Your task to perform on an android device: Go to Android settings Image 0: 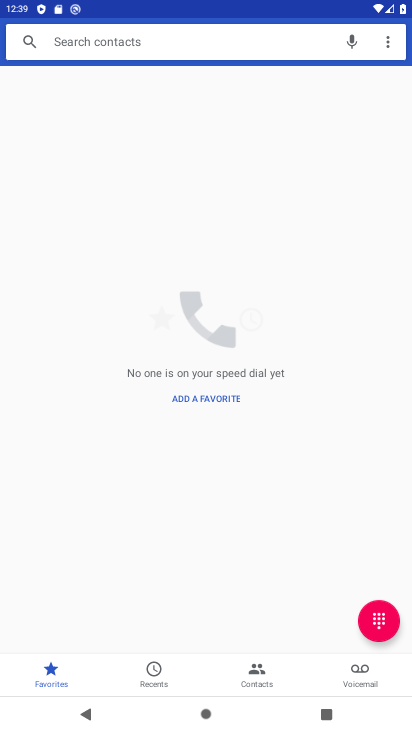
Step 0: press home button
Your task to perform on an android device: Go to Android settings Image 1: 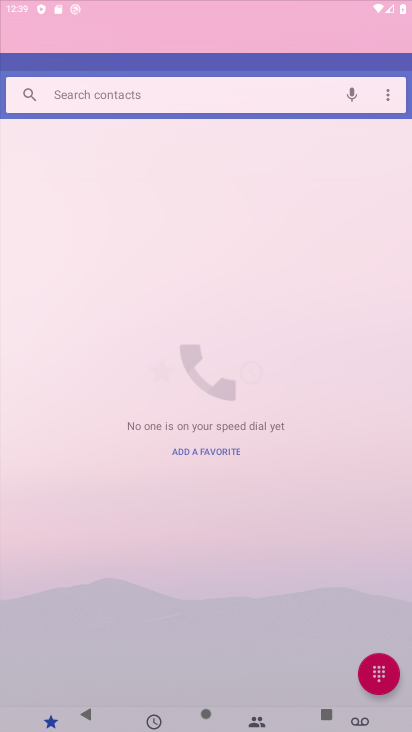
Step 1: press home button
Your task to perform on an android device: Go to Android settings Image 2: 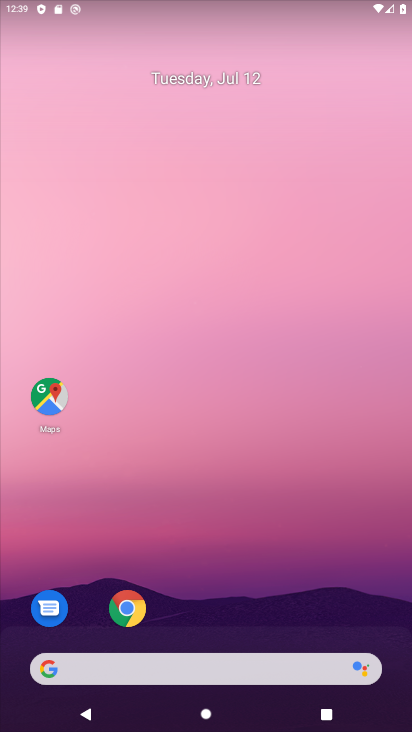
Step 2: drag from (376, 632) to (295, 114)
Your task to perform on an android device: Go to Android settings Image 3: 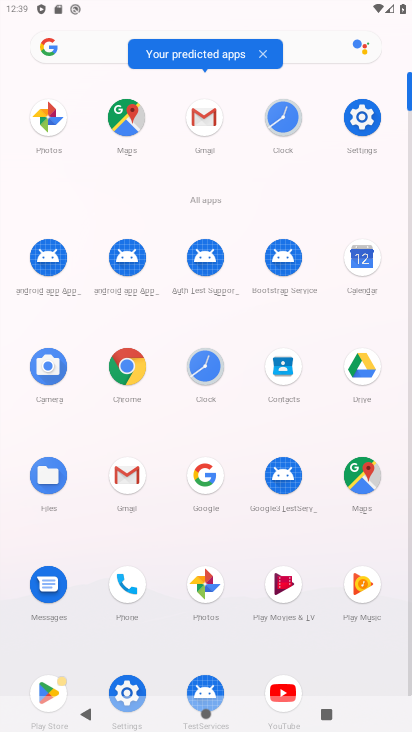
Step 3: click (372, 115)
Your task to perform on an android device: Go to Android settings Image 4: 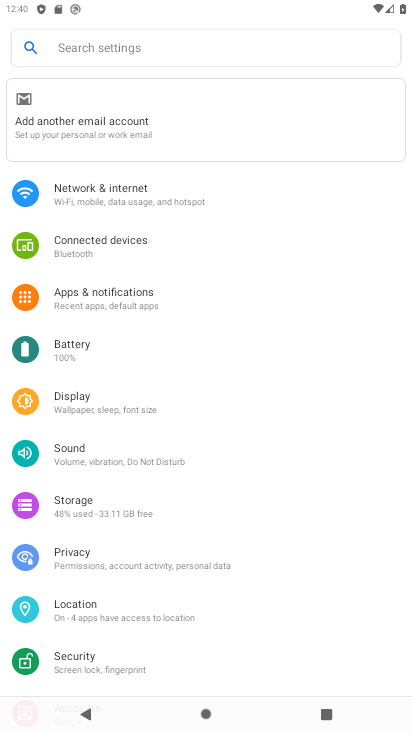
Step 4: task complete